Your task to perform on an android device: Empty the shopping cart on costco. Search for macbook pro on costco, select the first entry, and add it to the cart. Image 0: 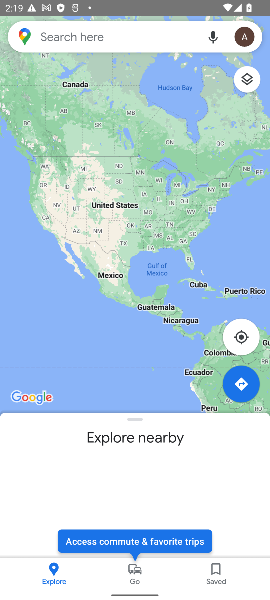
Step 0: press home button
Your task to perform on an android device: Empty the shopping cart on costco. Search for macbook pro on costco, select the first entry, and add it to the cart. Image 1: 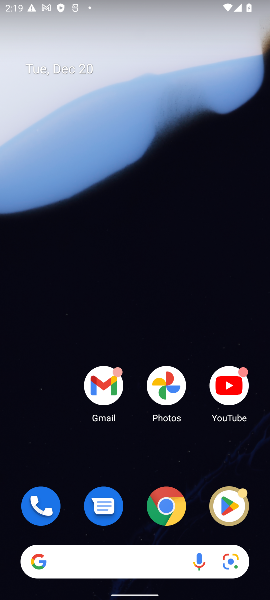
Step 1: click (169, 497)
Your task to perform on an android device: Empty the shopping cart on costco. Search for macbook pro on costco, select the first entry, and add it to the cart. Image 2: 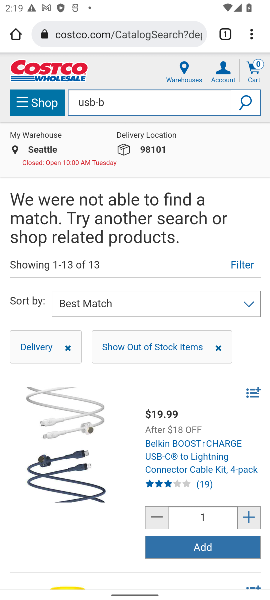
Step 2: click (204, 100)
Your task to perform on an android device: Empty the shopping cart on costco. Search for macbook pro on costco, select the first entry, and add it to the cart. Image 3: 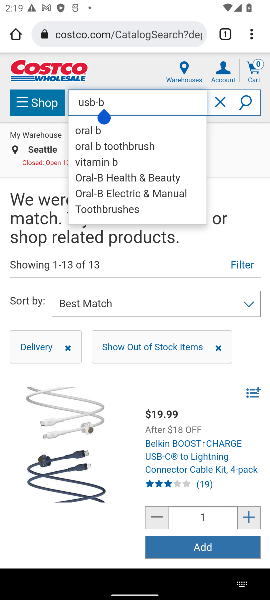
Step 3: click (220, 100)
Your task to perform on an android device: Empty the shopping cart on costco. Search for macbook pro on costco, select the first entry, and add it to the cart. Image 4: 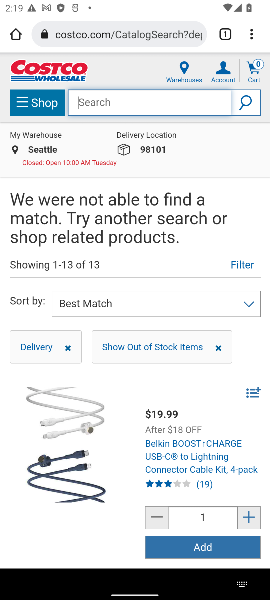
Step 4: click (156, 98)
Your task to perform on an android device: Empty the shopping cart on costco. Search for macbook pro on costco, select the first entry, and add it to the cart. Image 5: 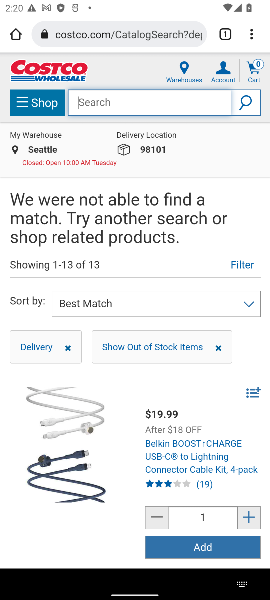
Step 5: type "macbook pro"
Your task to perform on an android device: Empty the shopping cart on costco. Search for macbook pro on costco, select the first entry, and add it to the cart. Image 6: 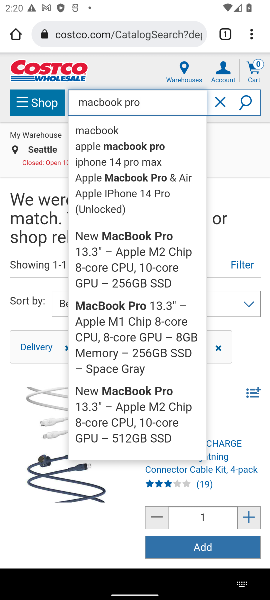
Step 6: click (108, 130)
Your task to perform on an android device: Empty the shopping cart on costco. Search for macbook pro on costco, select the first entry, and add it to the cart. Image 7: 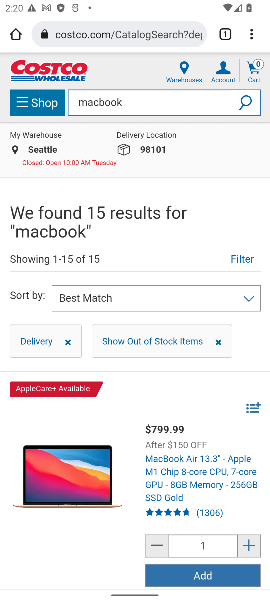
Step 7: click (204, 570)
Your task to perform on an android device: Empty the shopping cart on costco. Search for macbook pro on costco, select the first entry, and add it to the cart. Image 8: 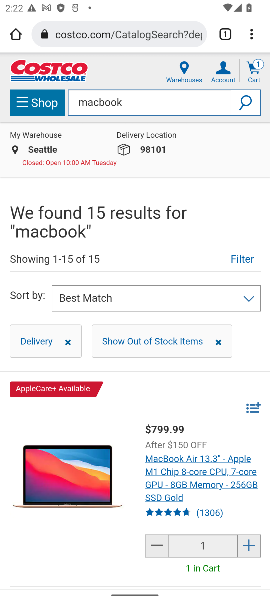
Step 8: task complete